Your task to perform on an android device: open chrome privacy settings Image 0: 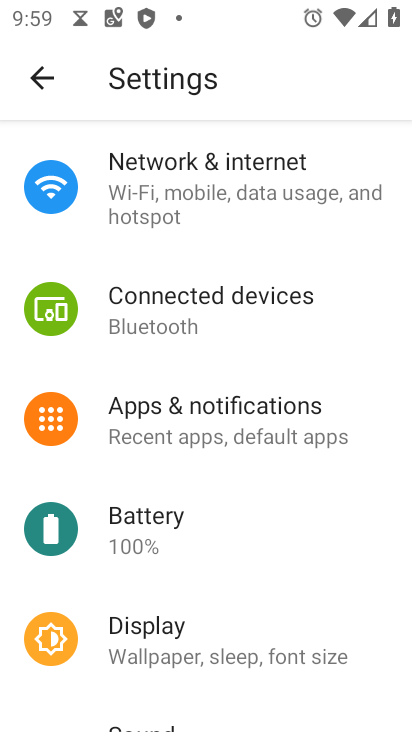
Step 0: click (41, 73)
Your task to perform on an android device: open chrome privacy settings Image 1: 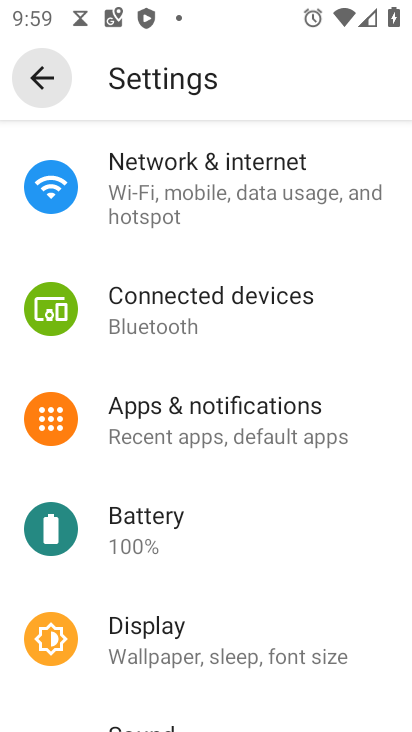
Step 1: click (36, 75)
Your task to perform on an android device: open chrome privacy settings Image 2: 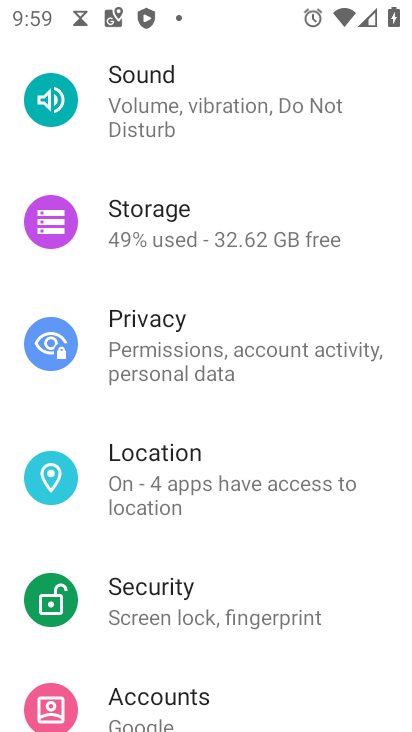
Step 2: click (151, 330)
Your task to perform on an android device: open chrome privacy settings Image 3: 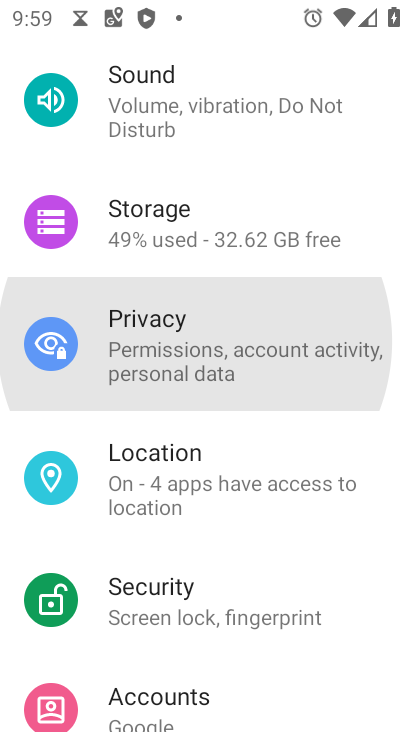
Step 3: click (151, 331)
Your task to perform on an android device: open chrome privacy settings Image 4: 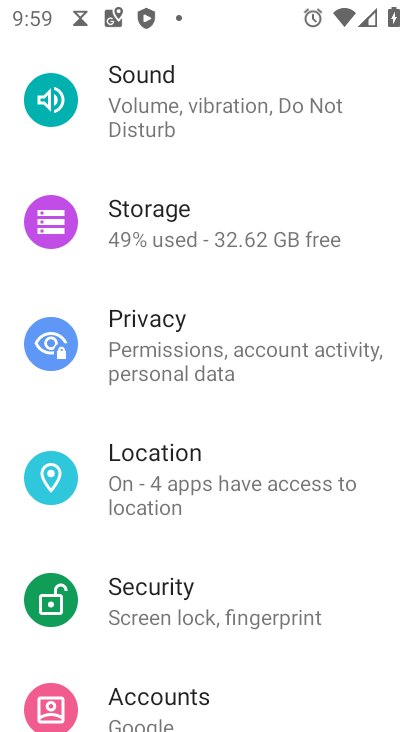
Step 4: click (150, 332)
Your task to perform on an android device: open chrome privacy settings Image 5: 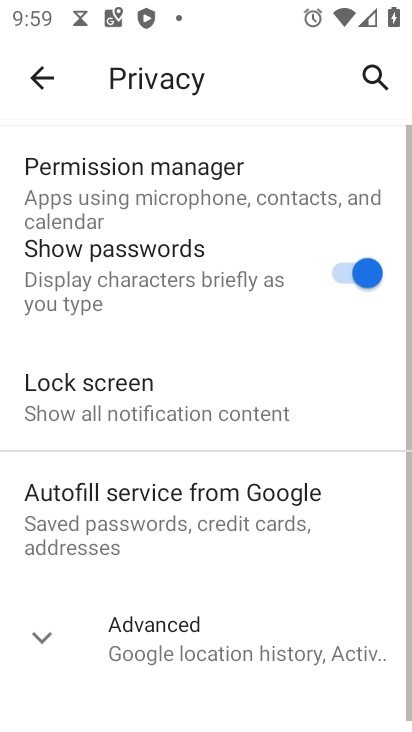
Step 5: click (155, 352)
Your task to perform on an android device: open chrome privacy settings Image 6: 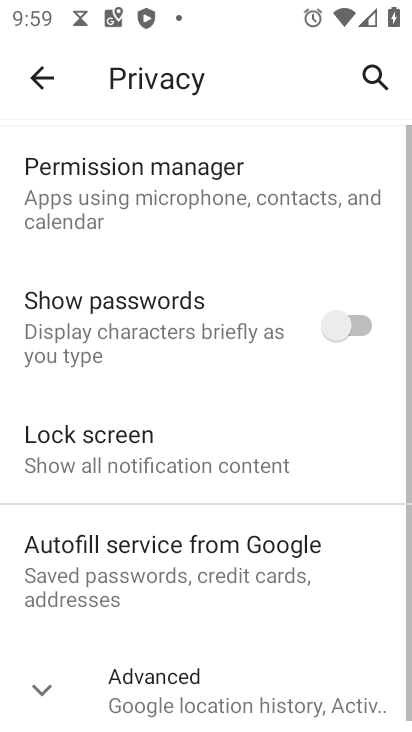
Step 6: task complete